Your task to perform on an android device: toggle priority inbox in the gmail app Image 0: 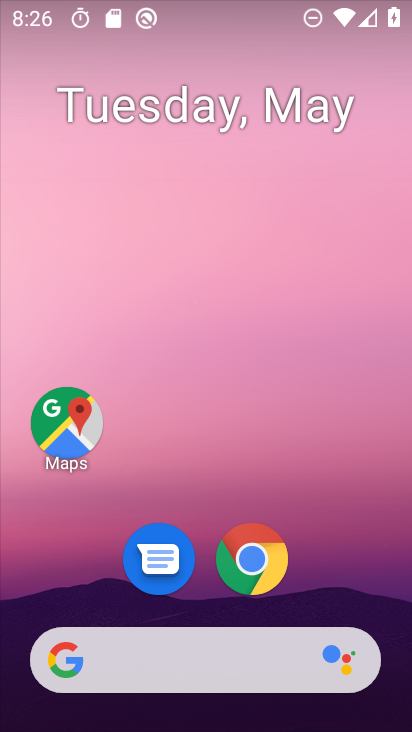
Step 0: drag from (388, 655) to (295, 72)
Your task to perform on an android device: toggle priority inbox in the gmail app Image 1: 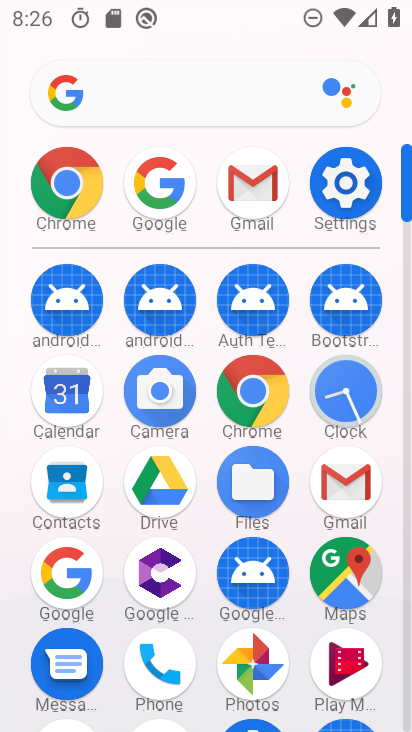
Step 1: click (346, 498)
Your task to perform on an android device: toggle priority inbox in the gmail app Image 2: 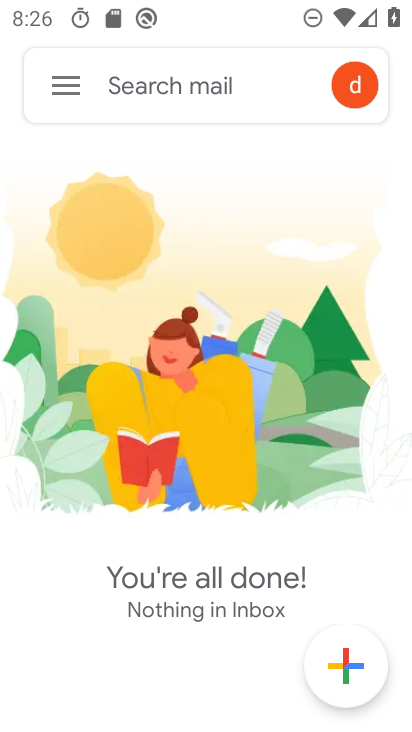
Step 2: click (66, 97)
Your task to perform on an android device: toggle priority inbox in the gmail app Image 3: 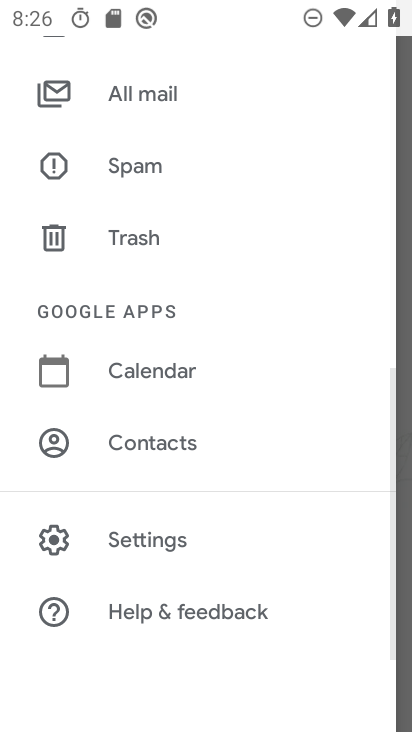
Step 3: click (164, 538)
Your task to perform on an android device: toggle priority inbox in the gmail app Image 4: 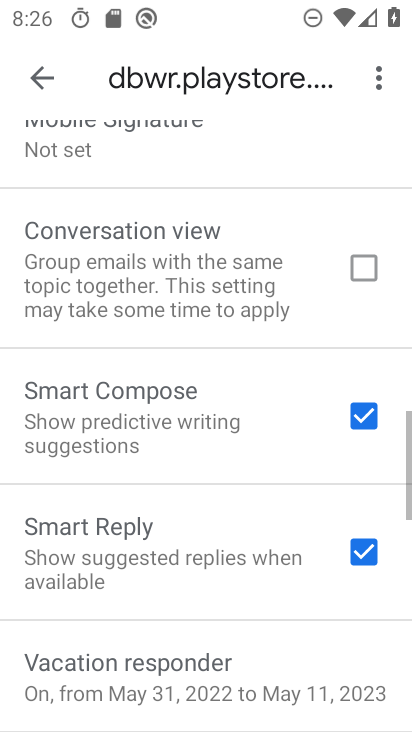
Step 4: drag from (206, 182) to (247, 698)
Your task to perform on an android device: toggle priority inbox in the gmail app Image 5: 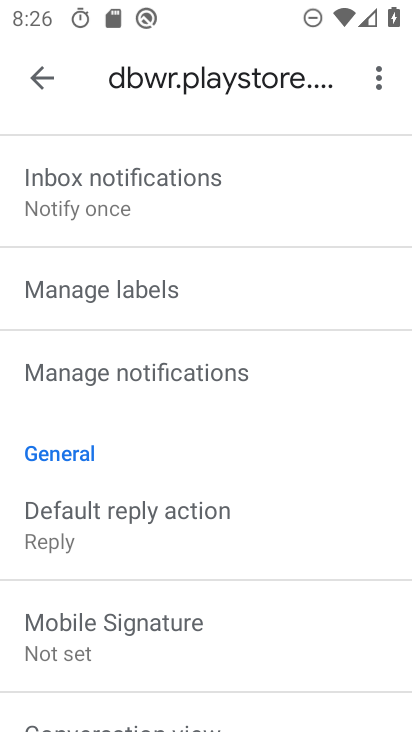
Step 5: drag from (223, 188) to (233, 719)
Your task to perform on an android device: toggle priority inbox in the gmail app Image 6: 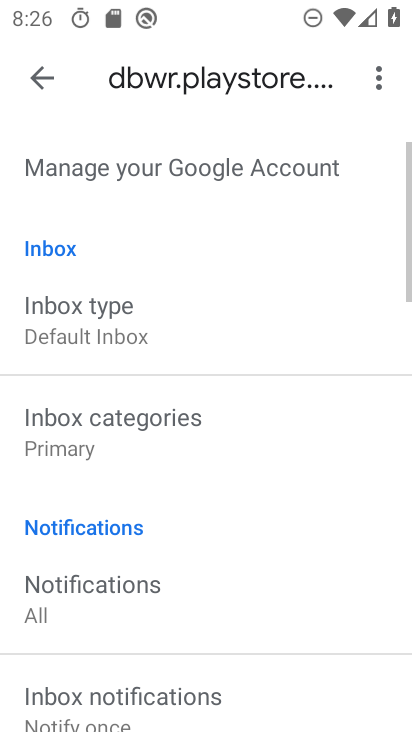
Step 6: drag from (220, 255) to (222, 717)
Your task to perform on an android device: toggle priority inbox in the gmail app Image 7: 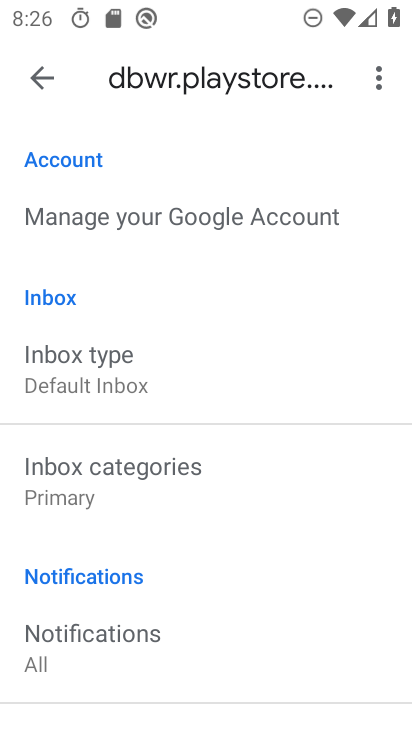
Step 7: click (42, 396)
Your task to perform on an android device: toggle priority inbox in the gmail app Image 8: 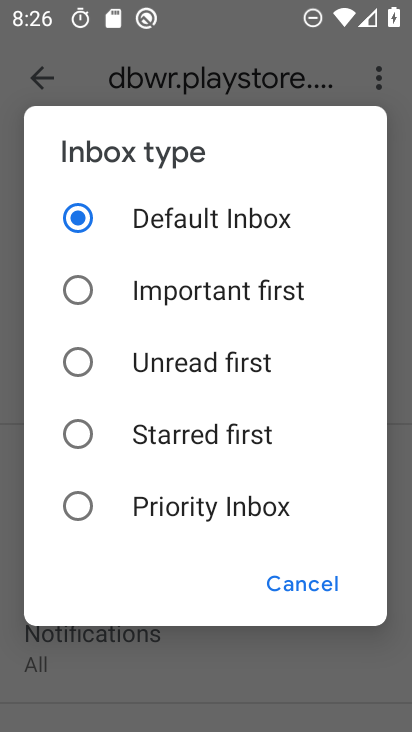
Step 8: task complete